Your task to perform on an android device: open app "McDonald's" (install if not already installed) Image 0: 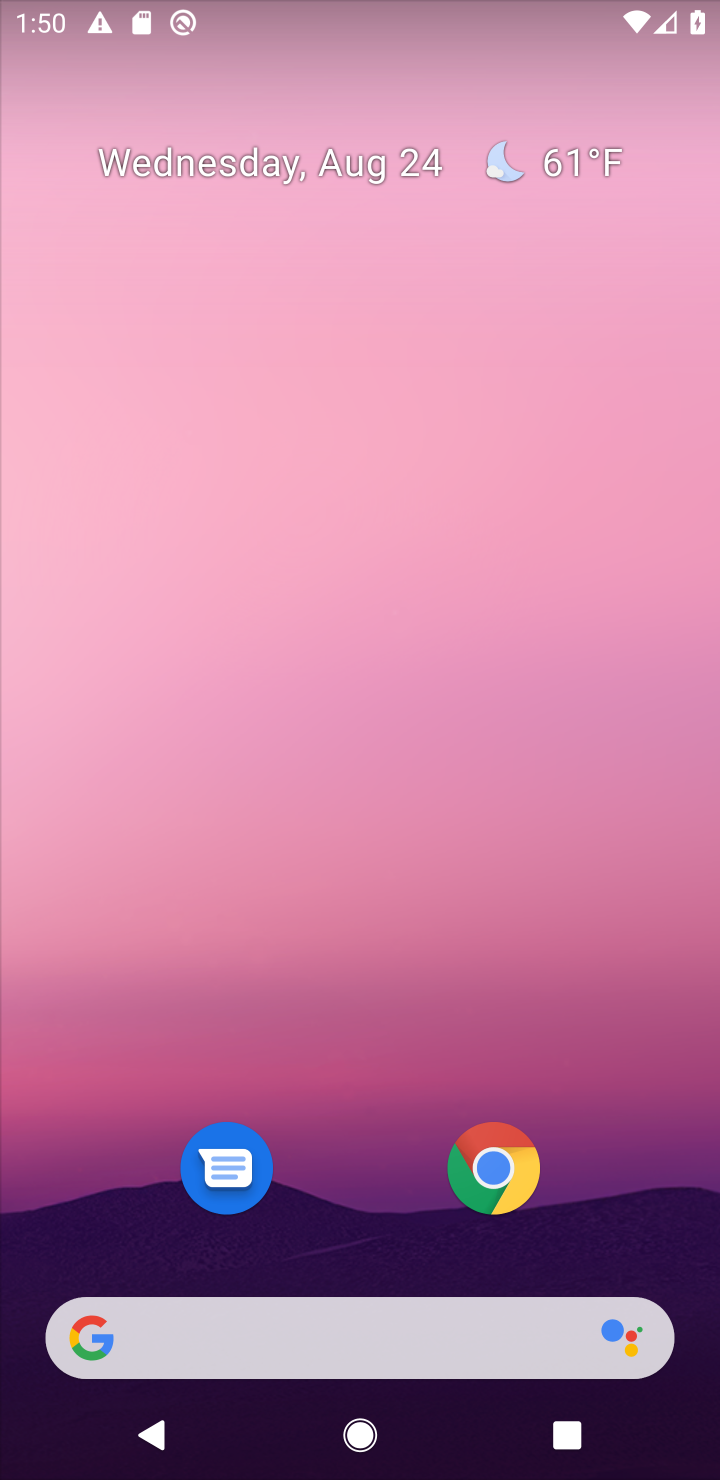
Step 0: drag from (675, 1290) to (674, 235)
Your task to perform on an android device: open app "McDonald's" (install if not already installed) Image 1: 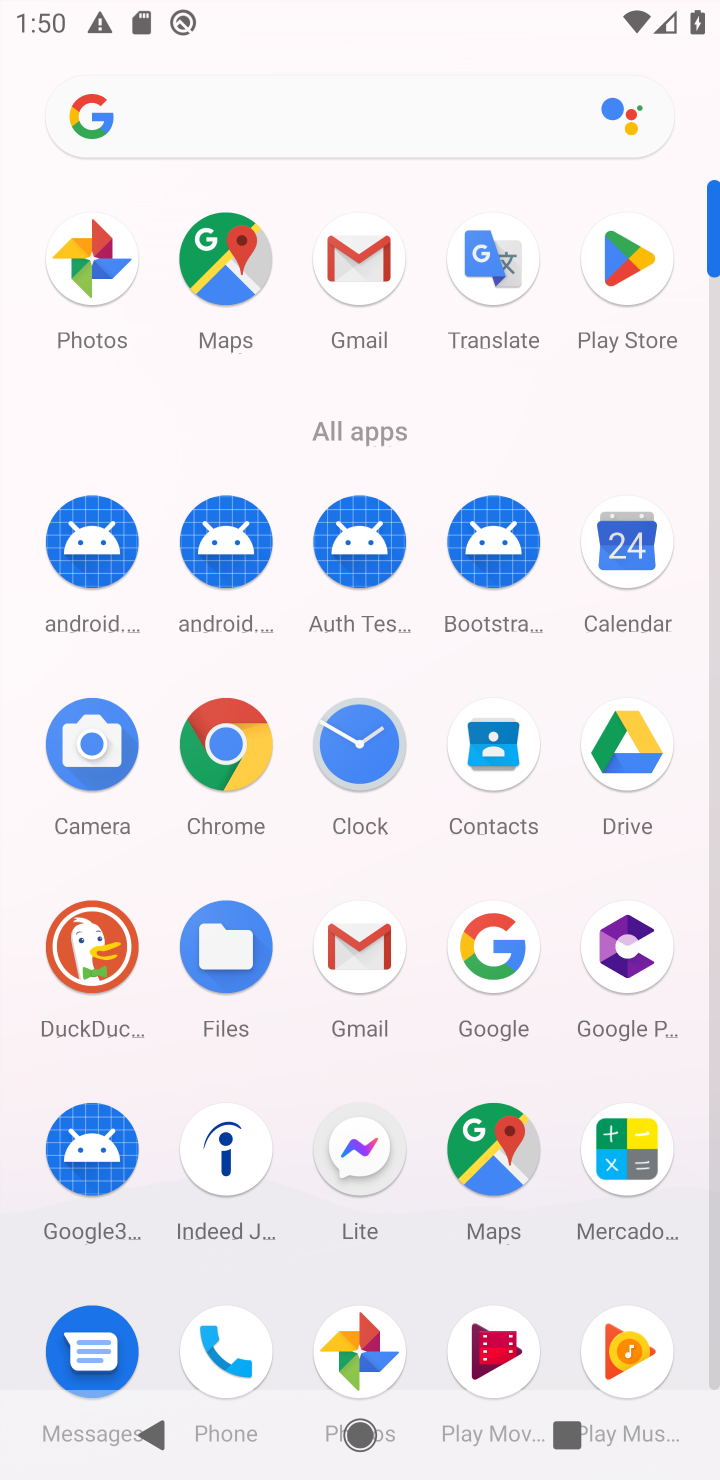
Step 1: click (716, 1350)
Your task to perform on an android device: open app "McDonald's" (install if not already installed) Image 2: 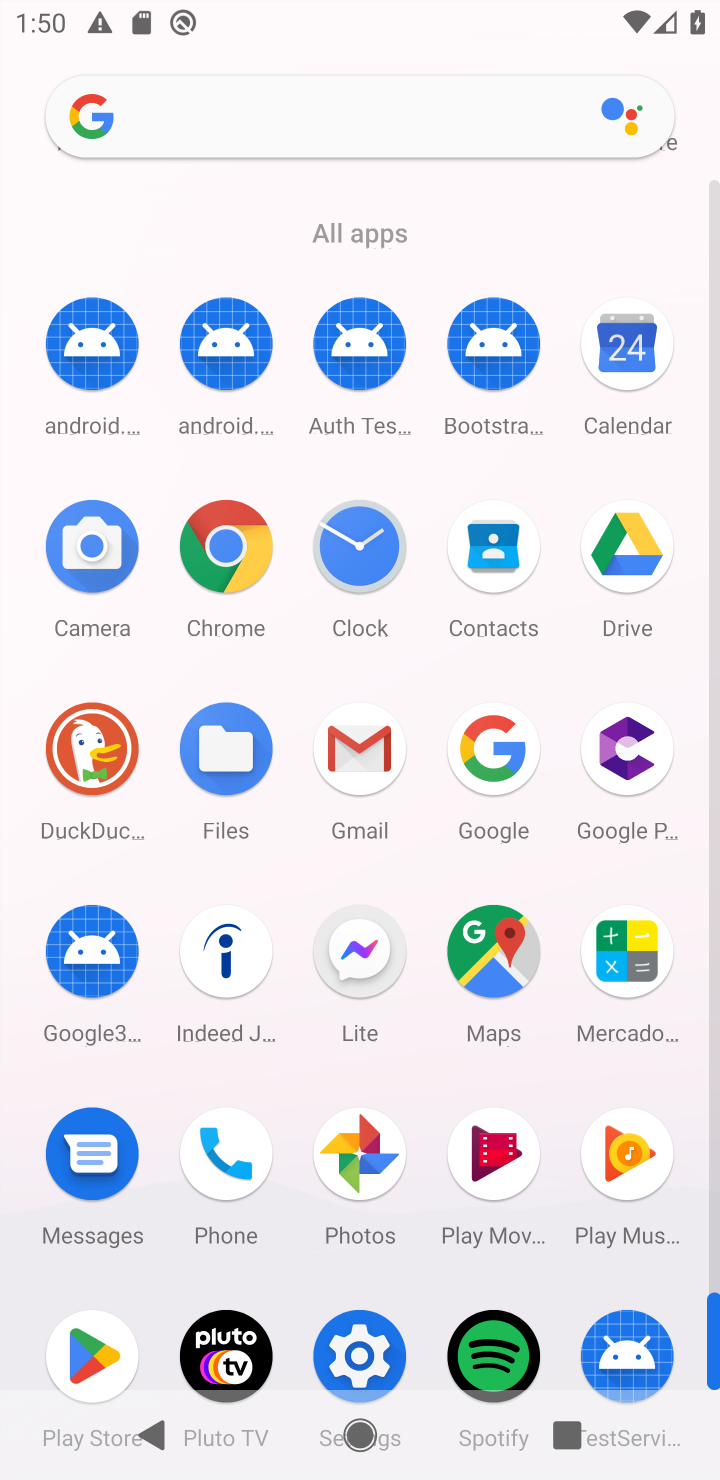
Step 2: click (89, 1346)
Your task to perform on an android device: open app "McDonald's" (install if not already installed) Image 3: 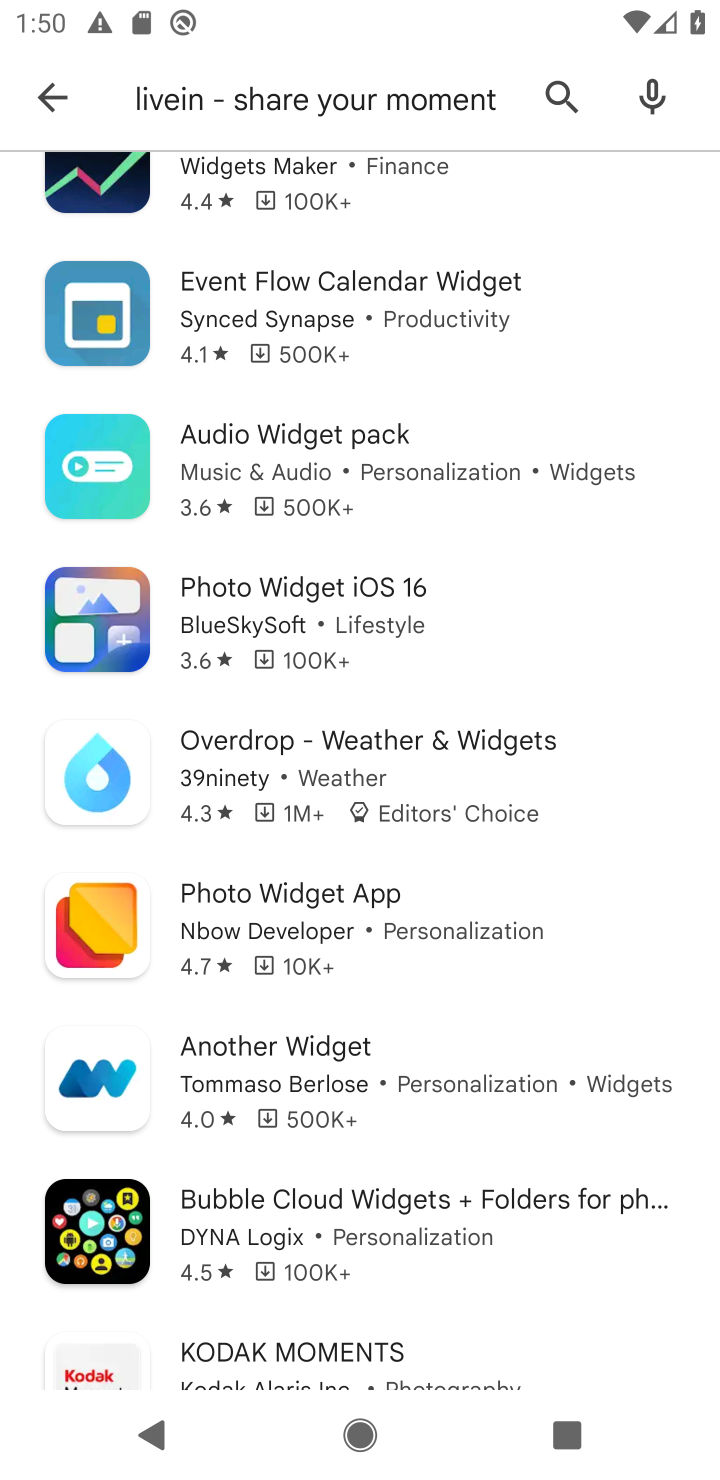
Step 3: click (572, 98)
Your task to perform on an android device: open app "McDonald's" (install if not already installed) Image 4: 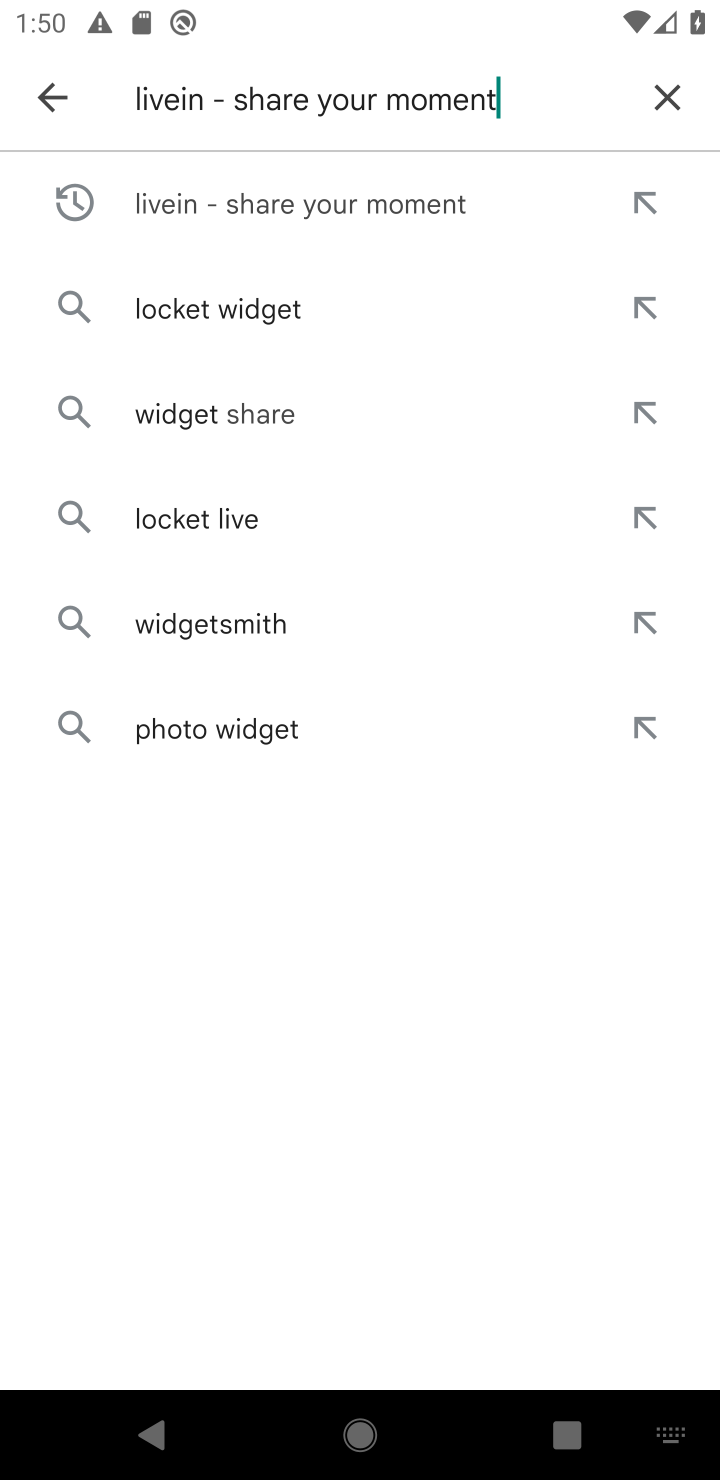
Step 4: click (669, 91)
Your task to perform on an android device: open app "McDonald's" (install if not already installed) Image 5: 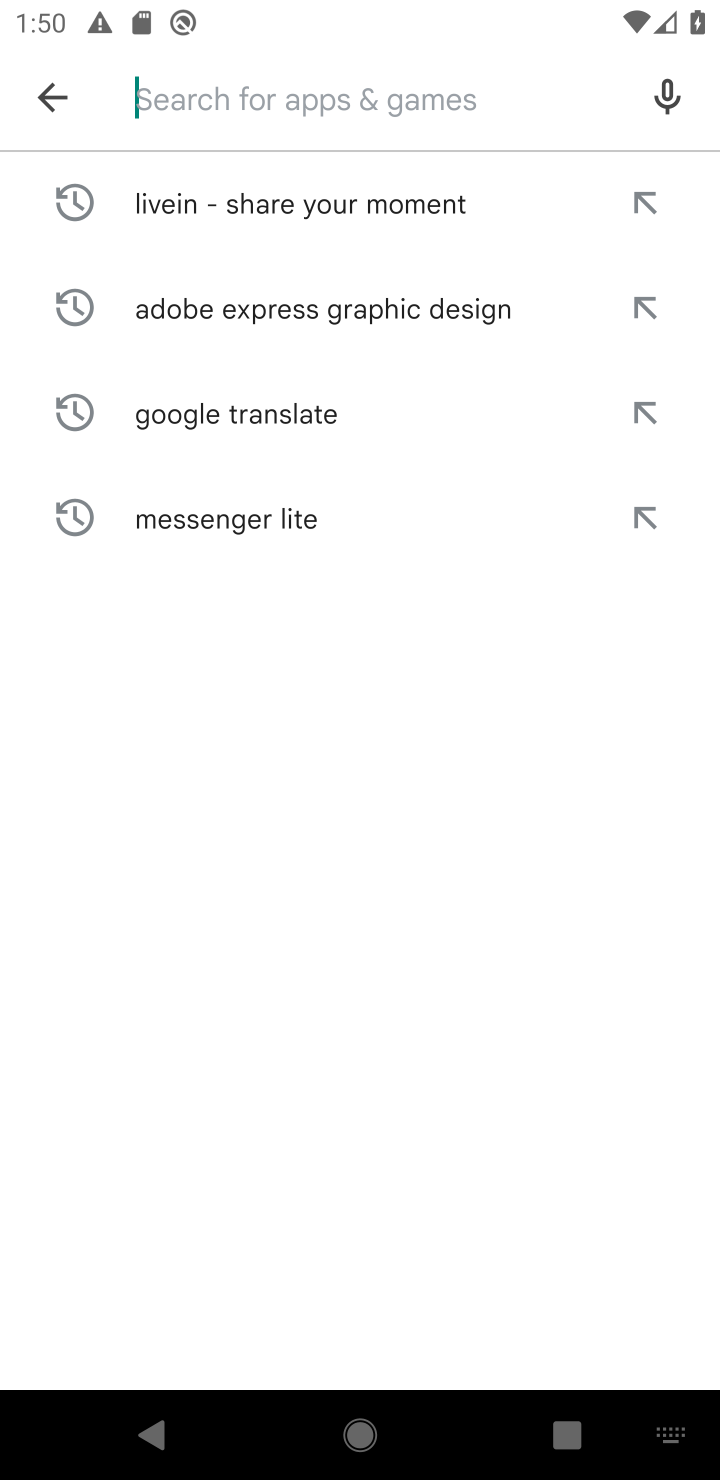
Step 5: click (669, 91)
Your task to perform on an android device: open app "McDonald's" (install if not already installed) Image 6: 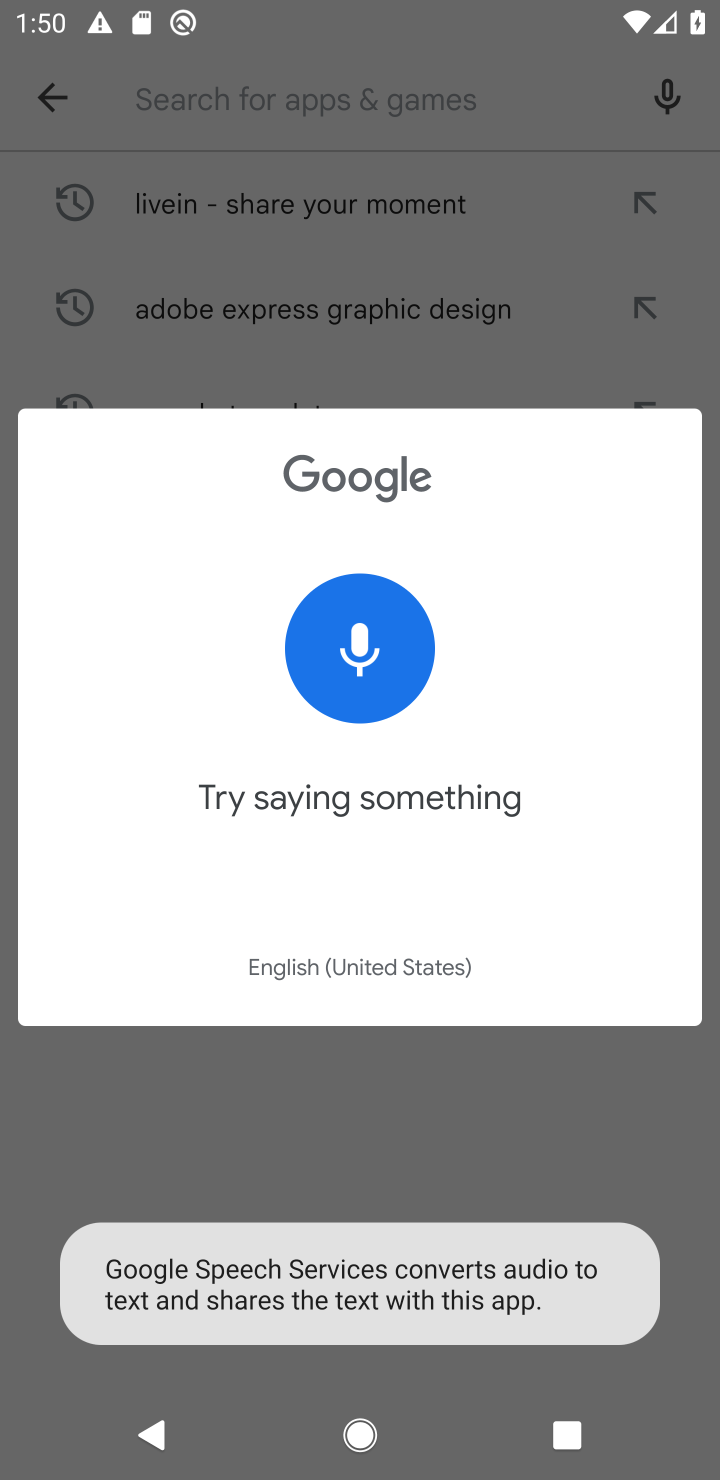
Step 6: click (250, 83)
Your task to perform on an android device: open app "McDonald's" (install if not already installed) Image 7: 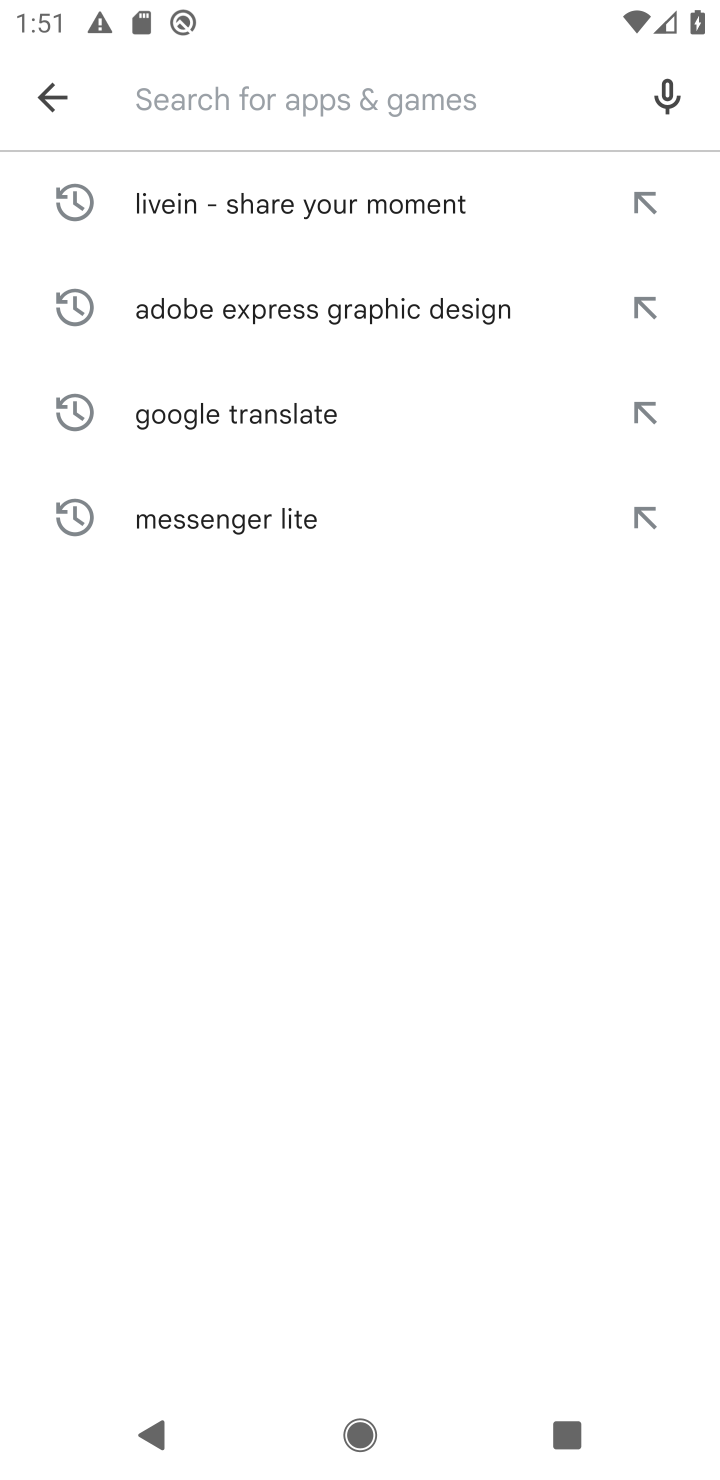
Step 7: type "McDonald's"
Your task to perform on an android device: open app "McDonald's" (install if not already installed) Image 8: 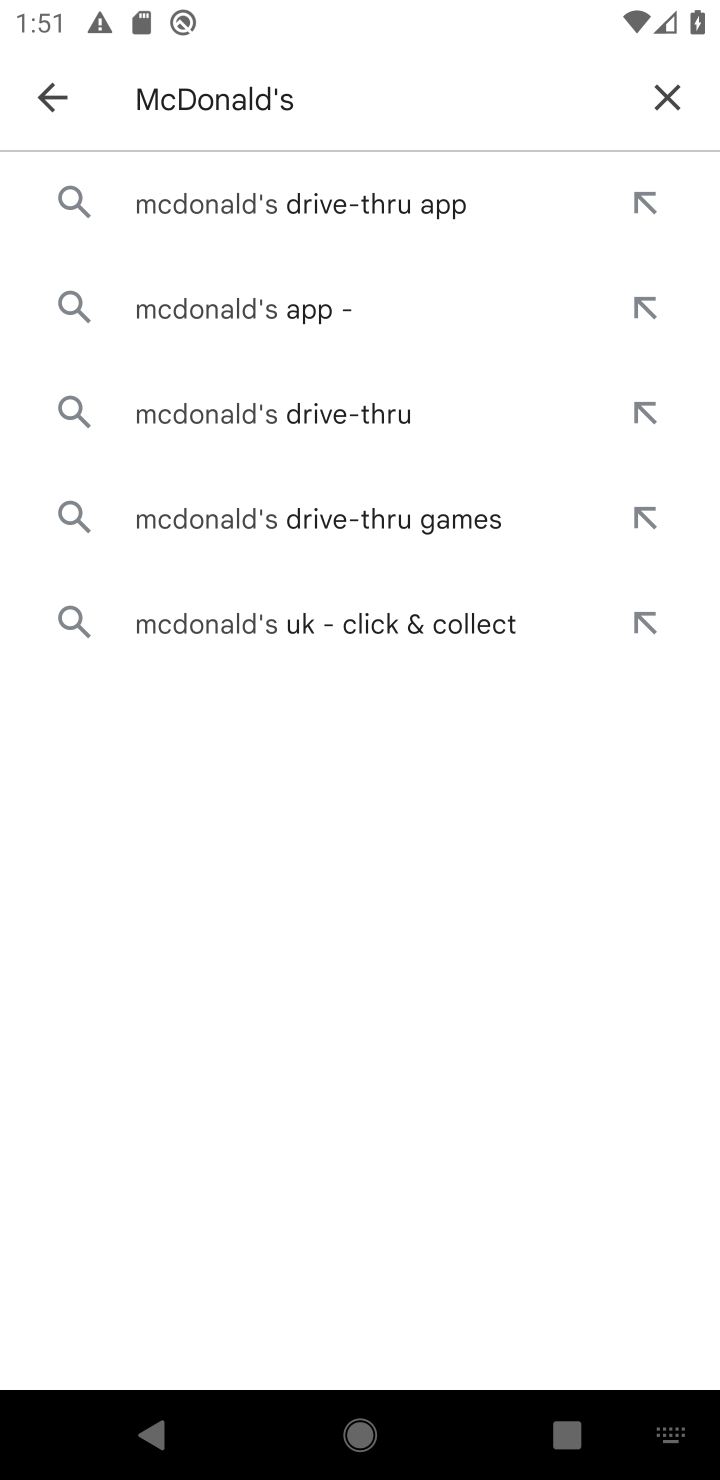
Step 8: click (221, 316)
Your task to perform on an android device: open app "McDonald's" (install if not already installed) Image 9: 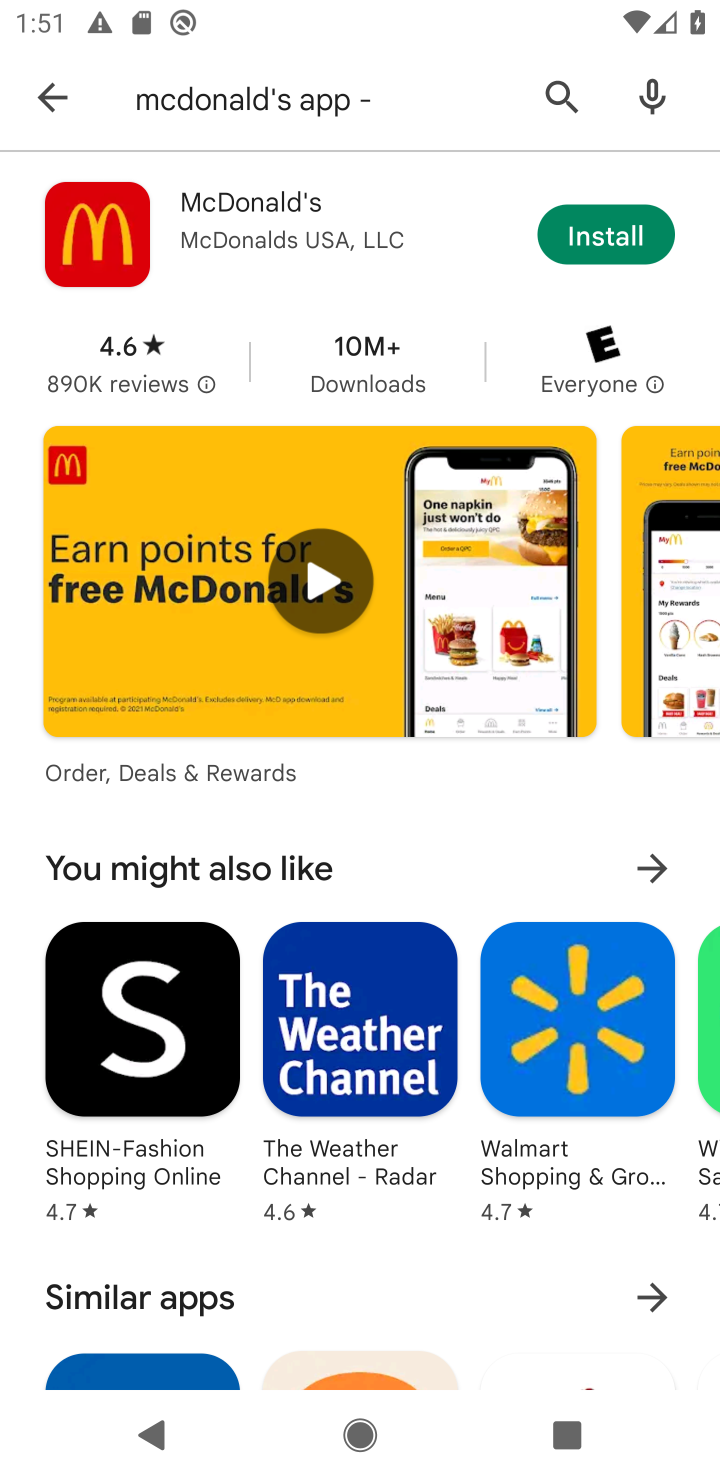
Step 9: click (296, 195)
Your task to perform on an android device: open app "McDonald's" (install if not already installed) Image 10: 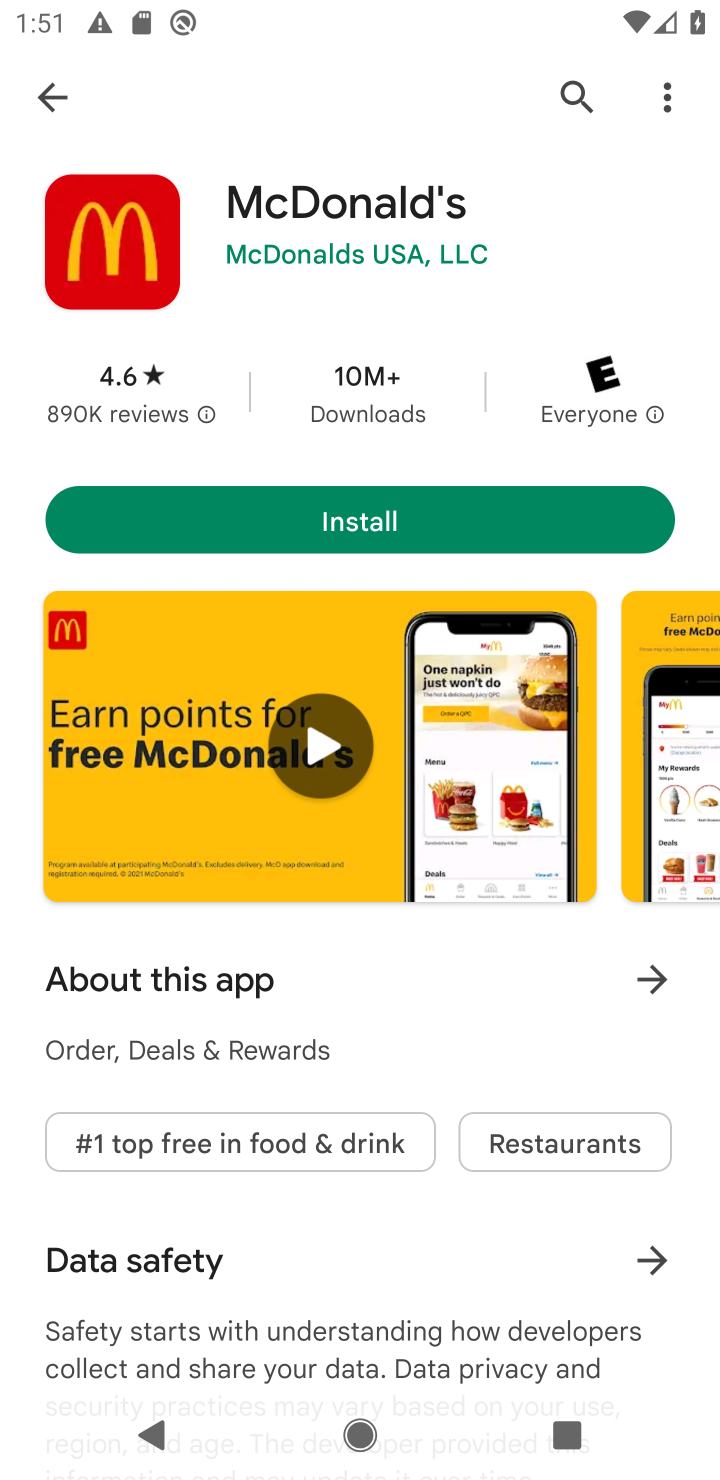
Step 10: click (370, 514)
Your task to perform on an android device: open app "McDonald's" (install if not already installed) Image 11: 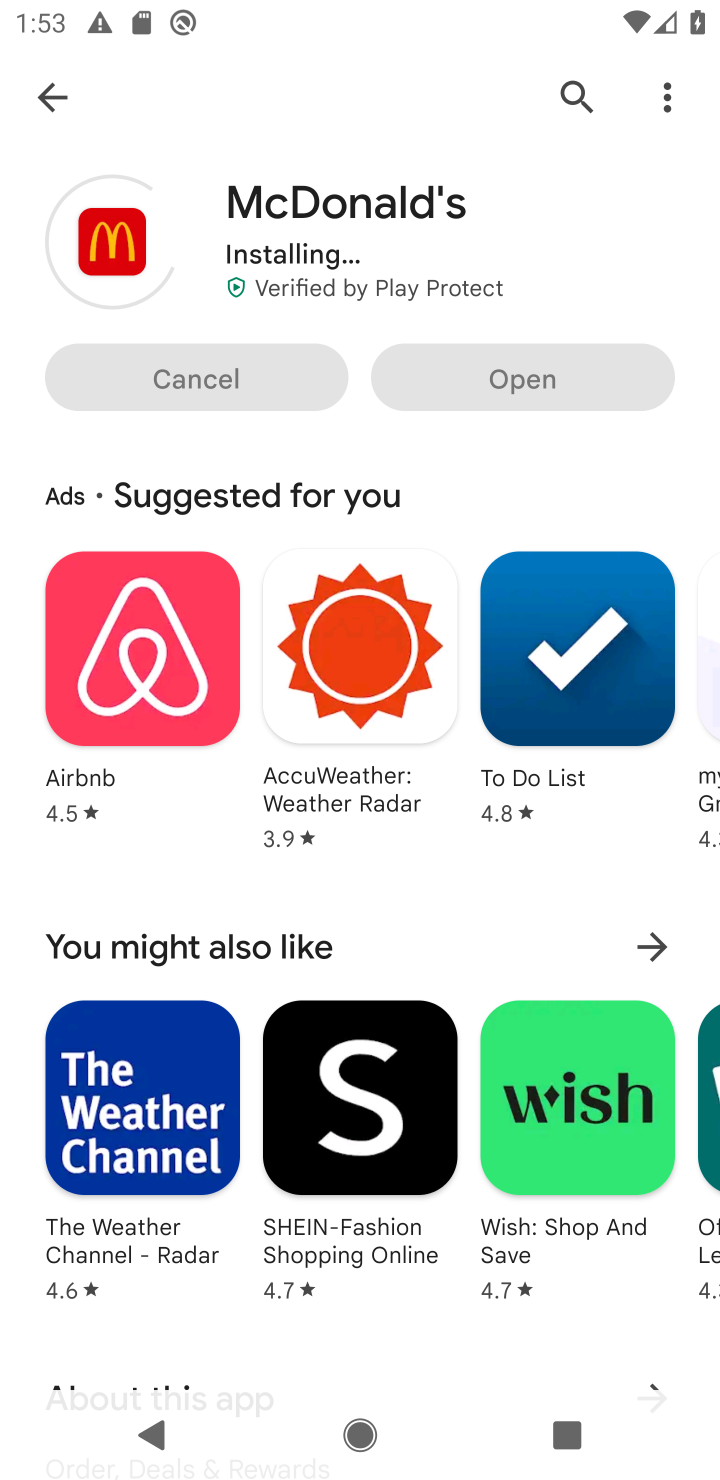
Step 11: press back button
Your task to perform on an android device: open app "McDonald's" (install if not already installed) Image 12: 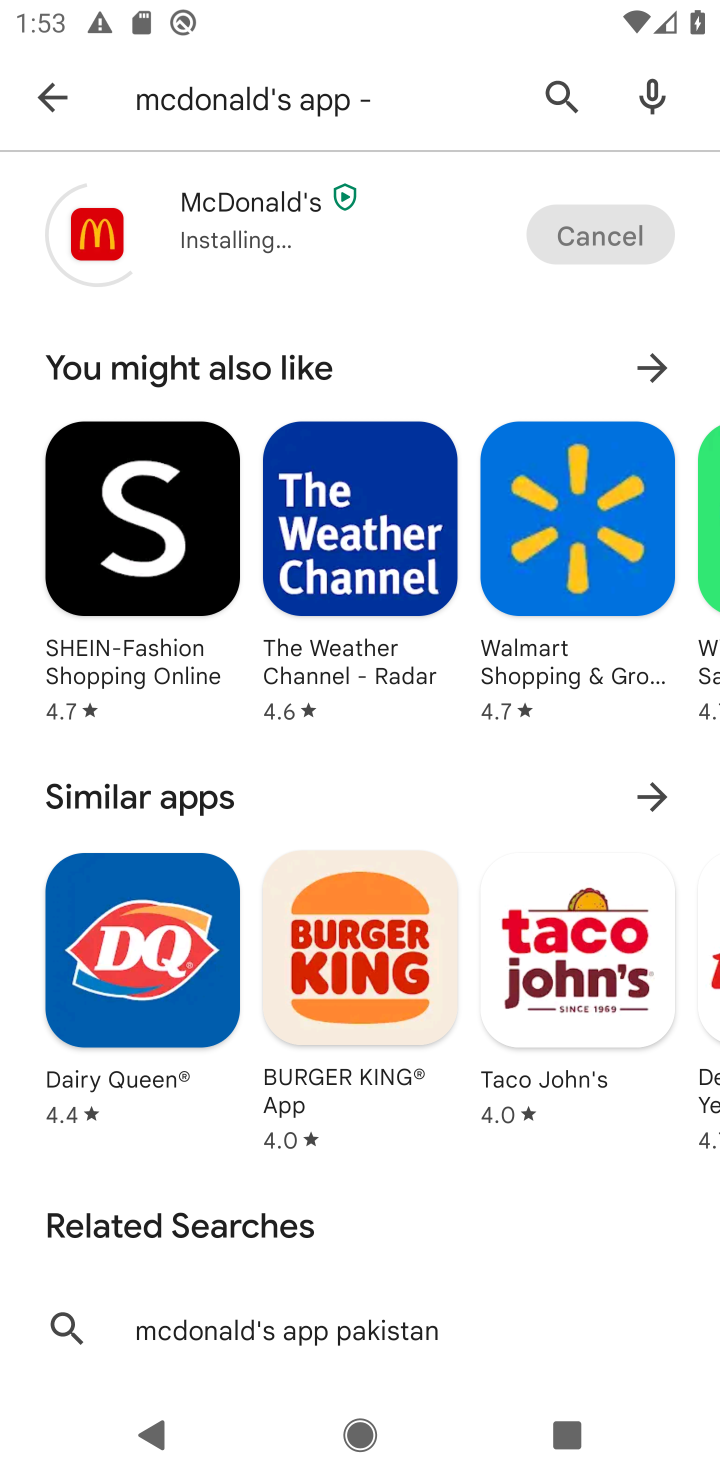
Step 12: click (210, 216)
Your task to perform on an android device: open app "McDonald's" (install if not already installed) Image 13: 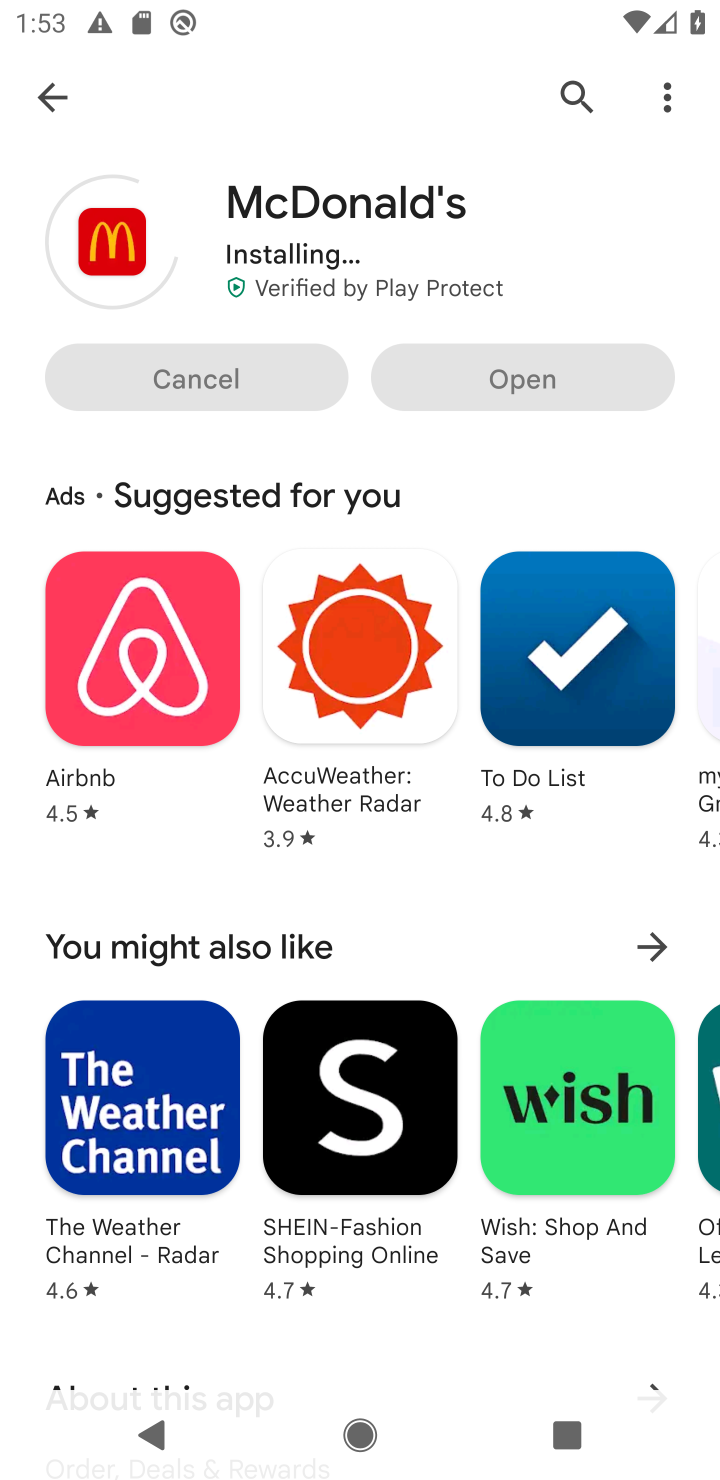
Step 13: drag from (368, 425) to (343, 181)
Your task to perform on an android device: open app "McDonald's" (install if not already installed) Image 14: 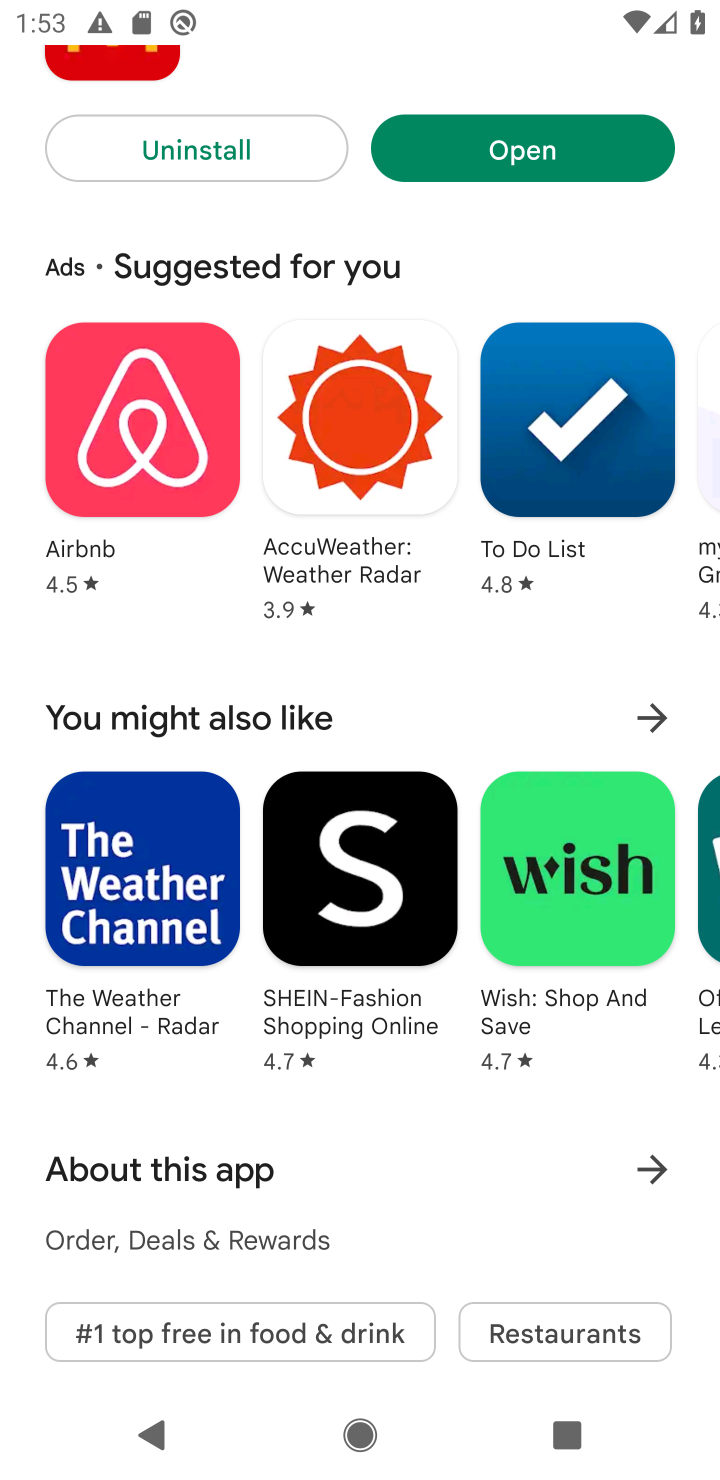
Step 14: click (518, 167)
Your task to perform on an android device: open app "McDonald's" (install if not already installed) Image 15: 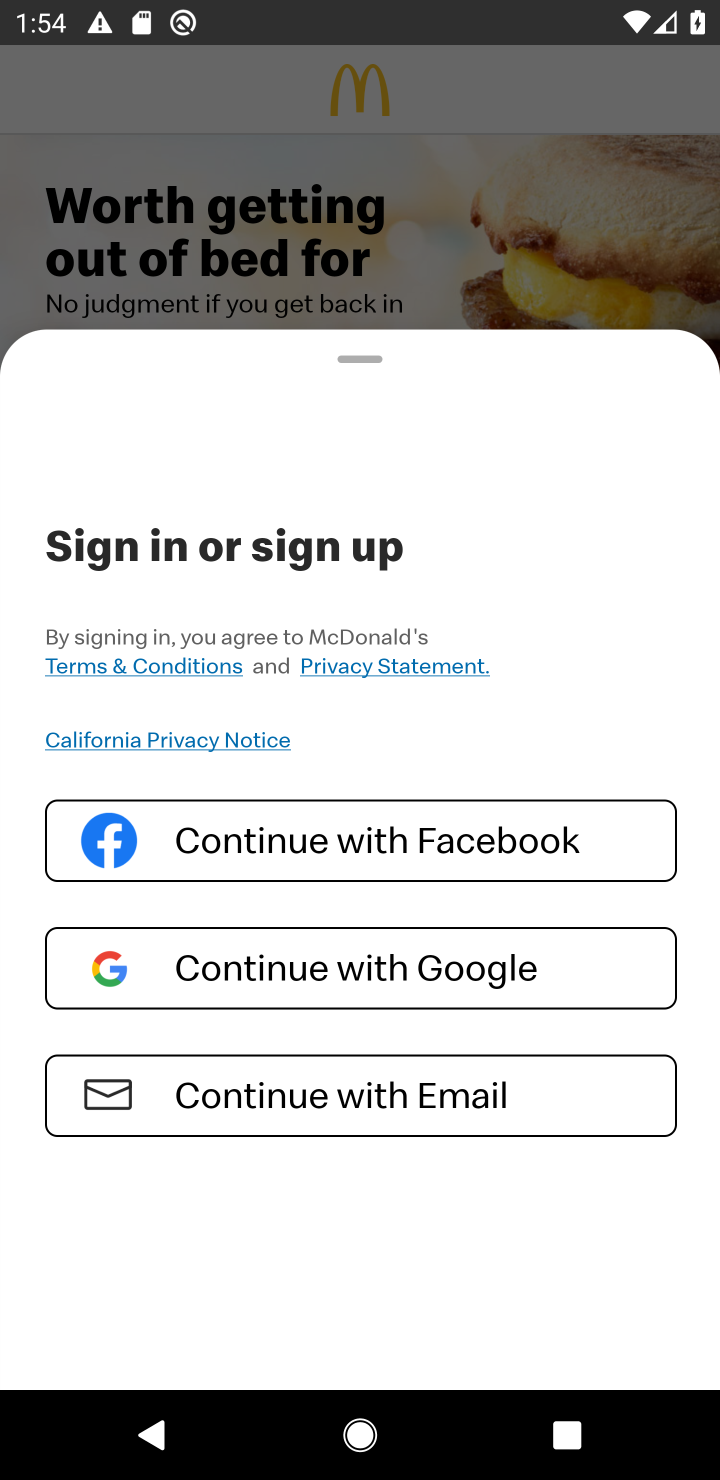
Step 15: task complete